Your task to perform on an android device: Go to Google maps Image 0: 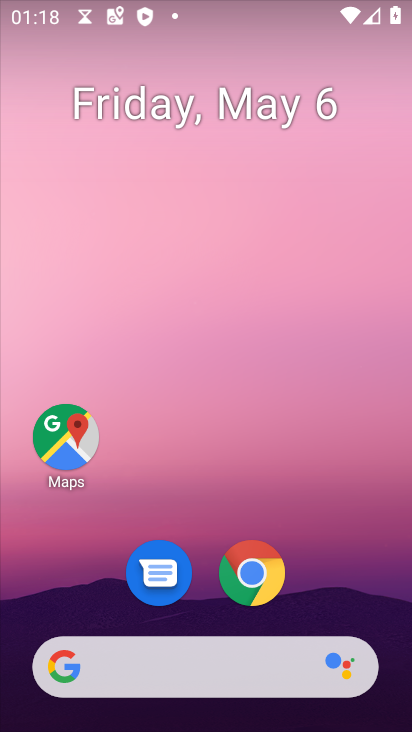
Step 0: drag from (327, 536) to (323, 244)
Your task to perform on an android device: Go to Google maps Image 1: 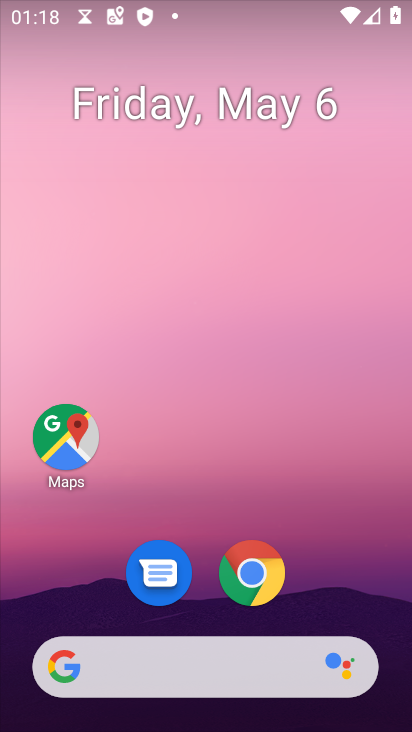
Step 1: drag from (321, 566) to (343, 289)
Your task to perform on an android device: Go to Google maps Image 2: 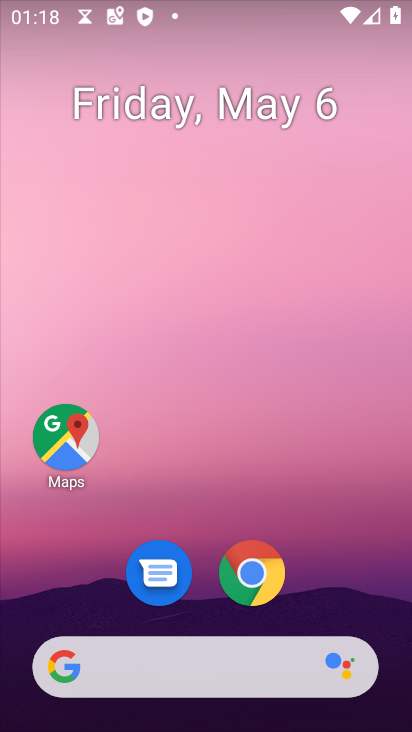
Step 2: drag from (281, 589) to (324, 226)
Your task to perform on an android device: Go to Google maps Image 3: 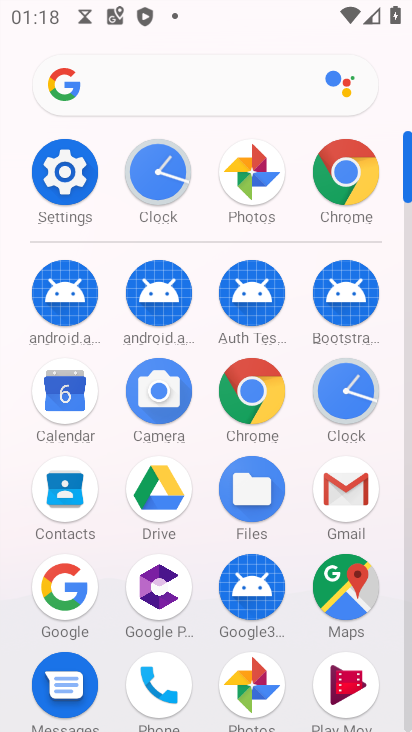
Step 3: click (347, 584)
Your task to perform on an android device: Go to Google maps Image 4: 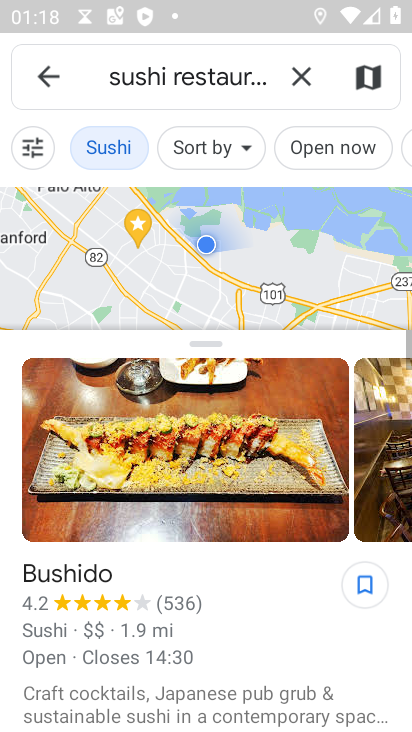
Step 4: click (304, 65)
Your task to perform on an android device: Go to Google maps Image 5: 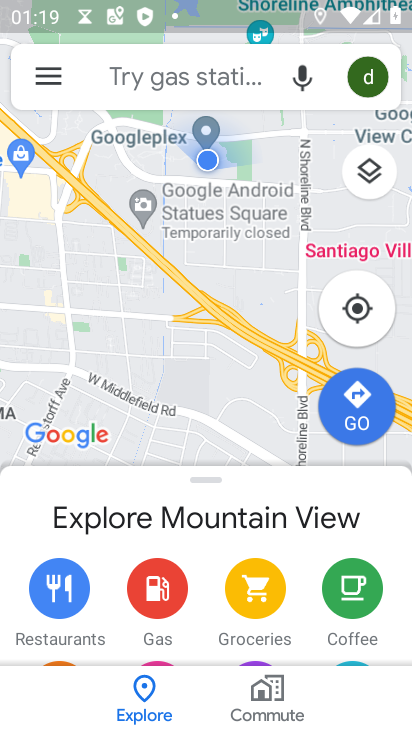
Step 5: task complete